Your task to perform on an android device: Open Yahoo.com Image 0: 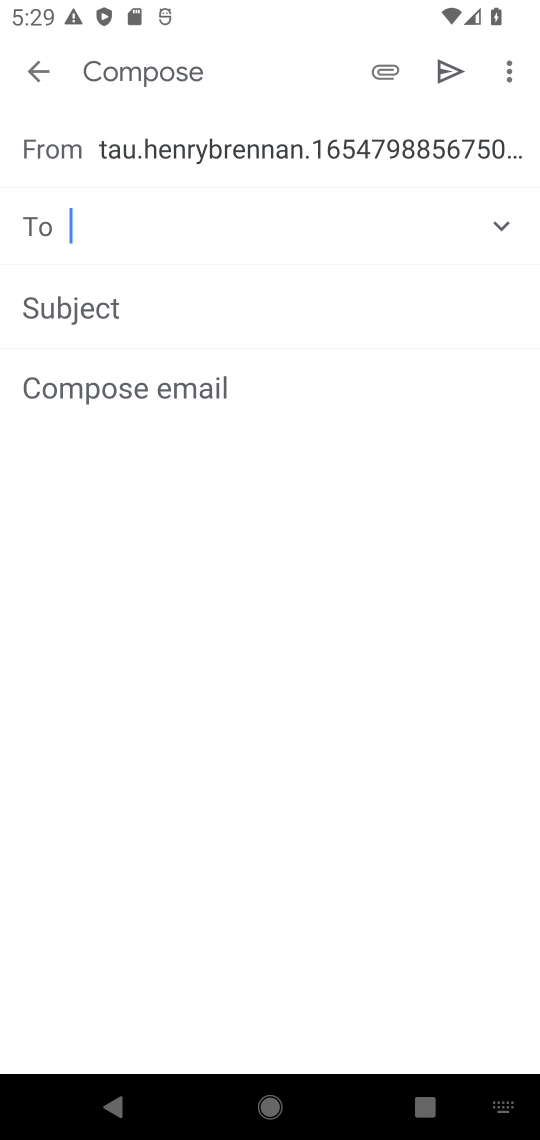
Step 0: press home button
Your task to perform on an android device: Open Yahoo.com Image 1: 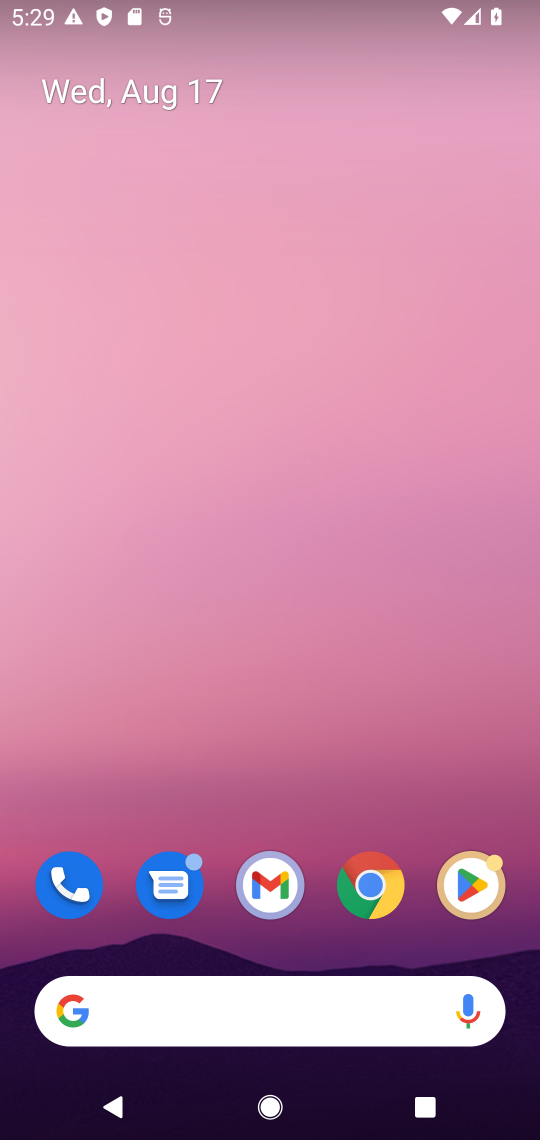
Step 1: drag from (300, 817) to (379, 114)
Your task to perform on an android device: Open Yahoo.com Image 2: 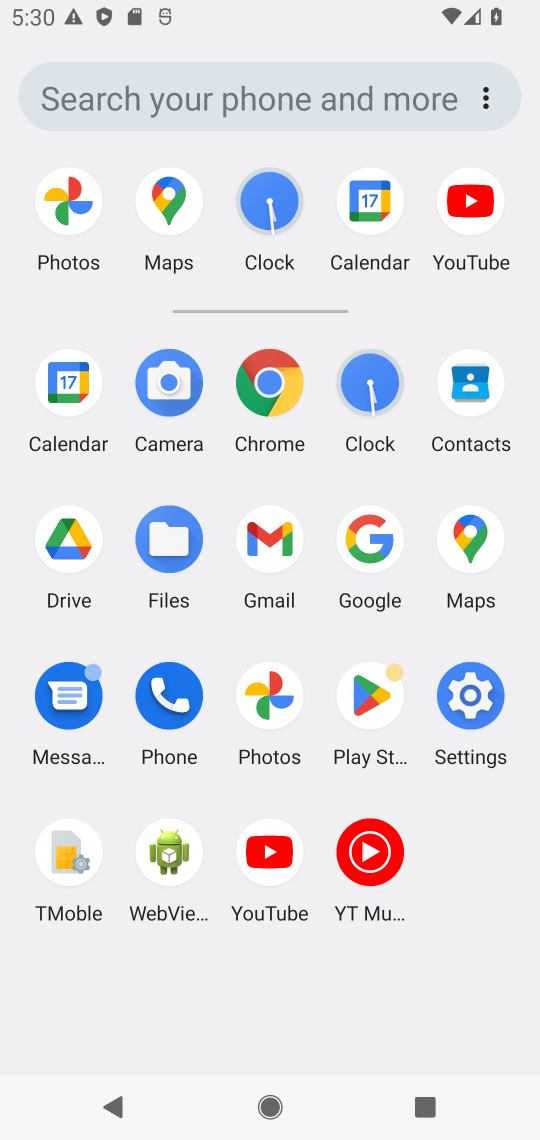
Step 2: click (273, 380)
Your task to perform on an android device: Open Yahoo.com Image 3: 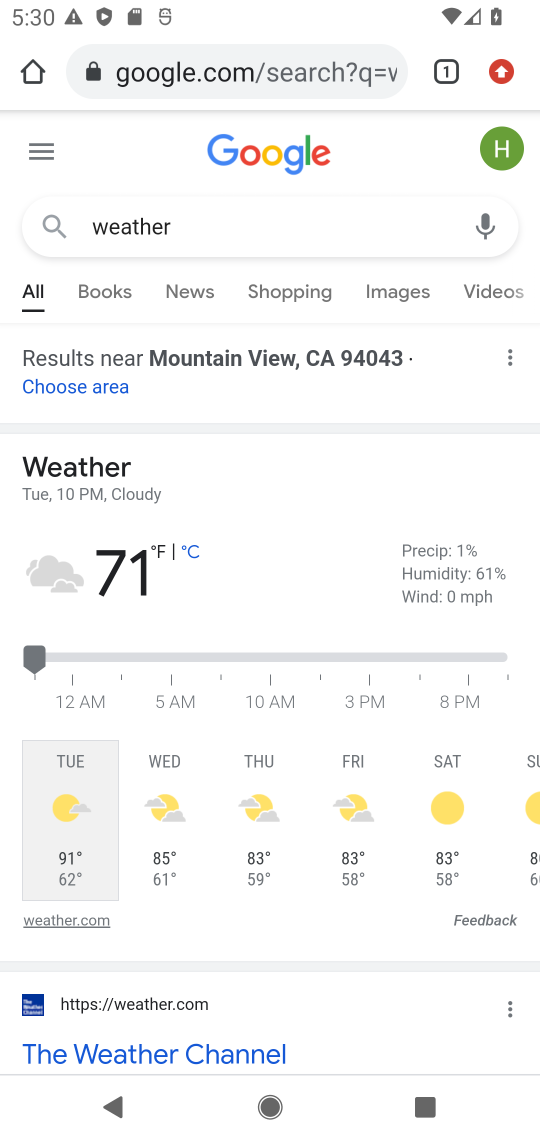
Step 3: click (306, 68)
Your task to perform on an android device: Open Yahoo.com Image 4: 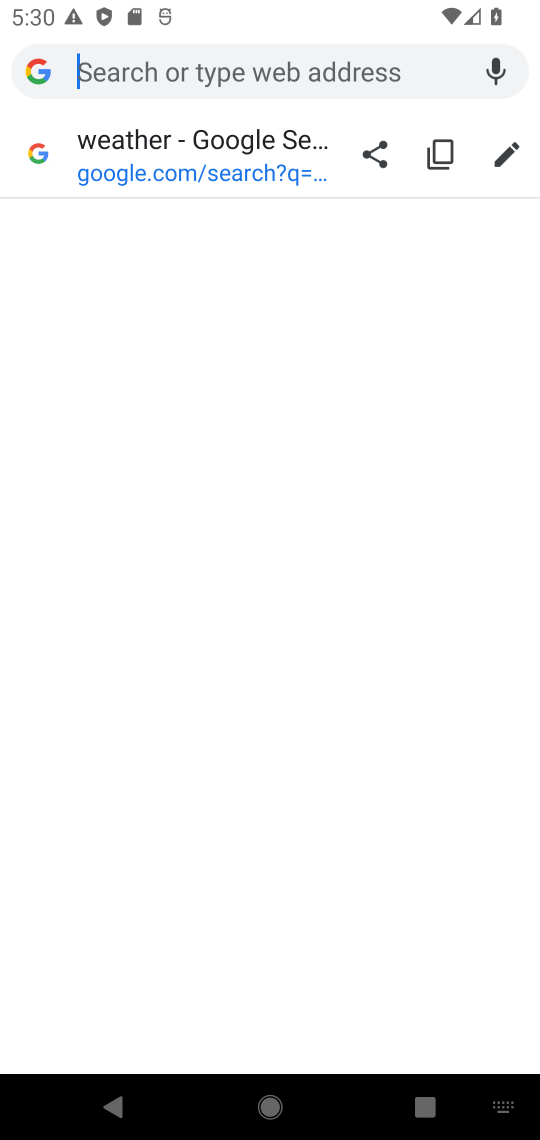
Step 4: type "yahoo.com"
Your task to perform on an android device: Open Yahoo.com Image 5: 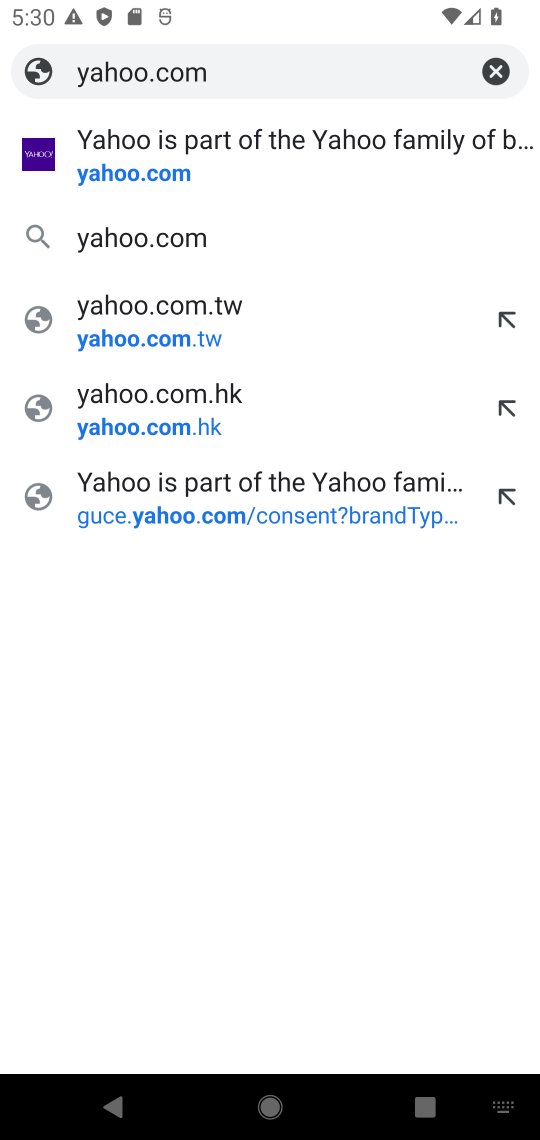
Step 5: click (180, 180)
Your task to perform on an android device: Open Yahoo.com Image 6: 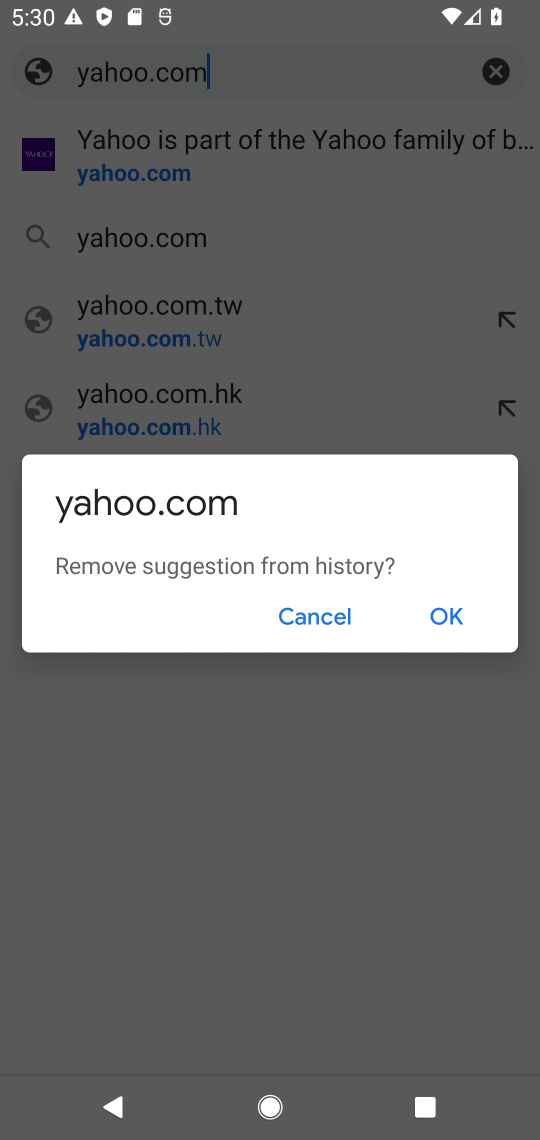
Step 6: click (302, 613)
Your task to perform on an android device: Open Yahoo.com Image 7: 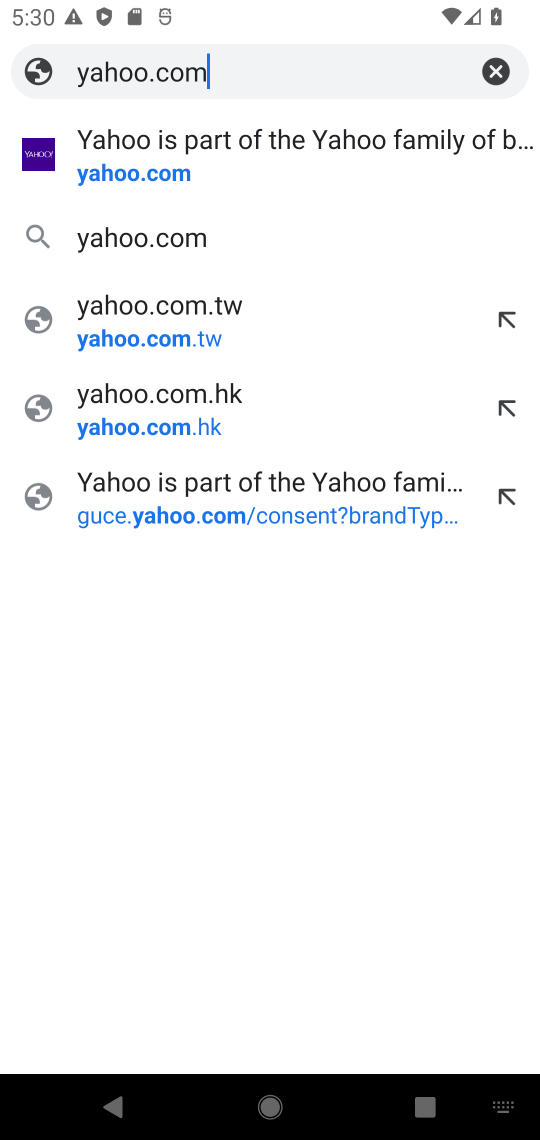
Step 7: click (177, 185)
Your task to perform on an android device: Open Yahoo.com Image 8: 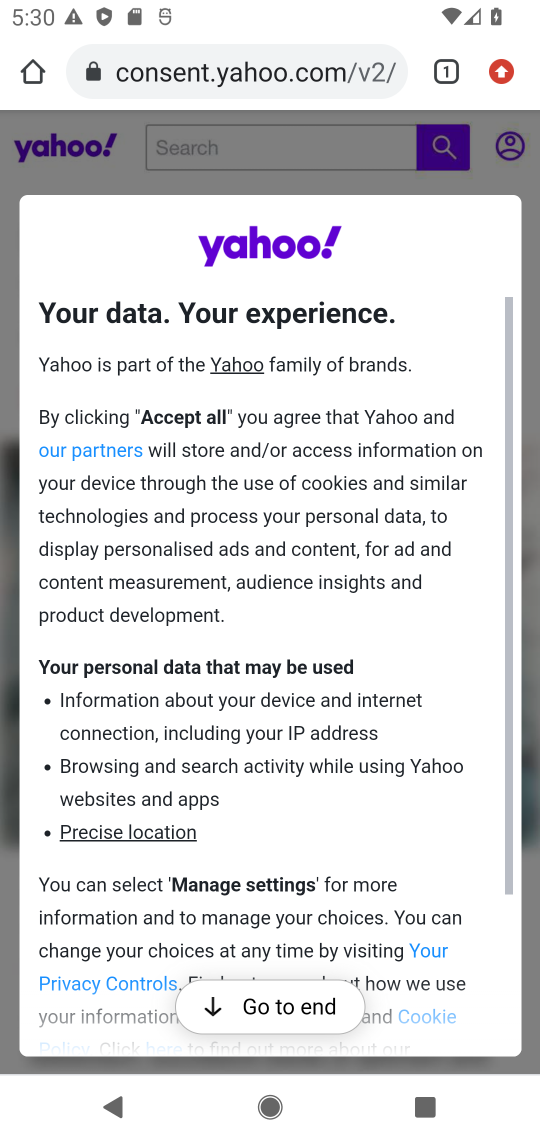
Step 8: task complete